Your task to perform on an android device: turn on bluetooth scan Image 0: 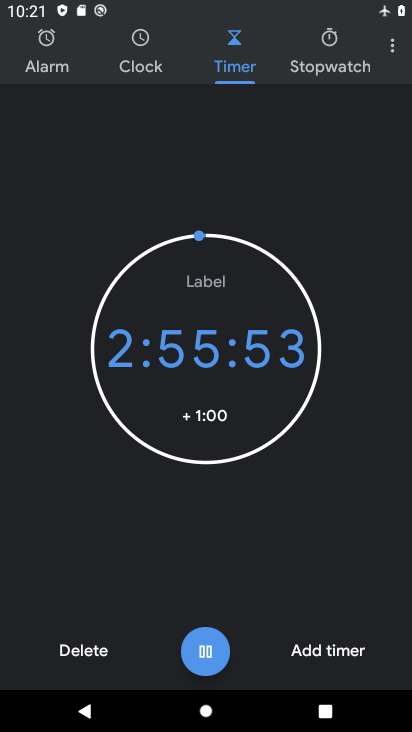
Step 0: press back button
Your task to perform on an android device: turn on bluetooth scan Image 1: 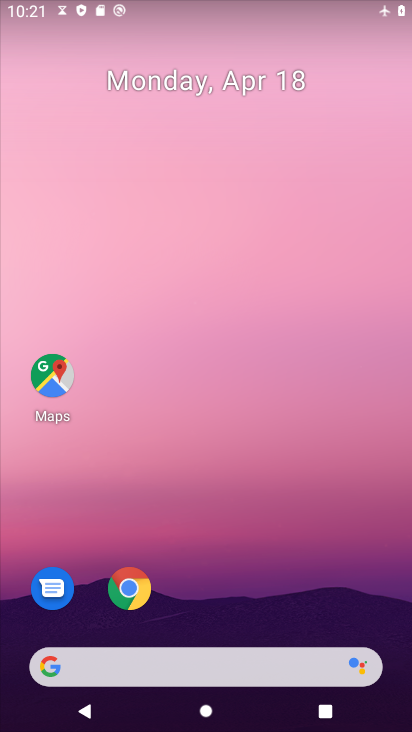
Step 1: drag from (308, 546) to (220, 50)
Your task to perform on an android device: turn on bluetooth scan Image 2: 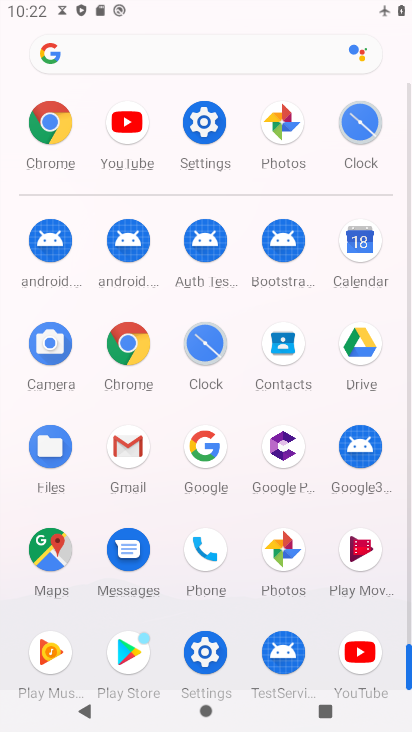
Step 2: click (207, 120)
Your task to perform on an android device: turn on bluetooth scan Image 3: 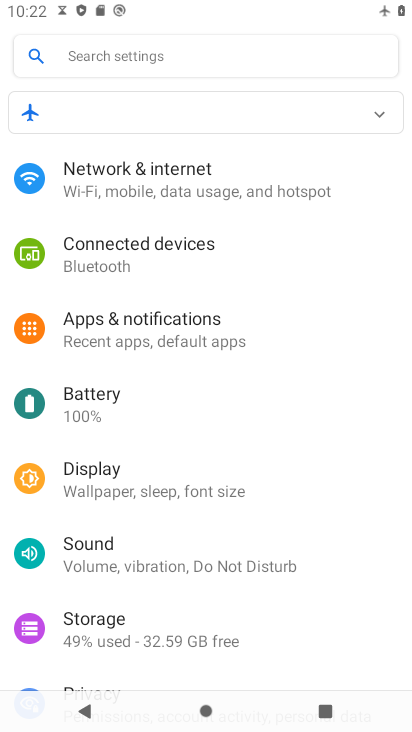
Step 3: drag from (256, 552) to (299, 208)
Your task to perform on an android device: turn on bluetooth scan Image 4: 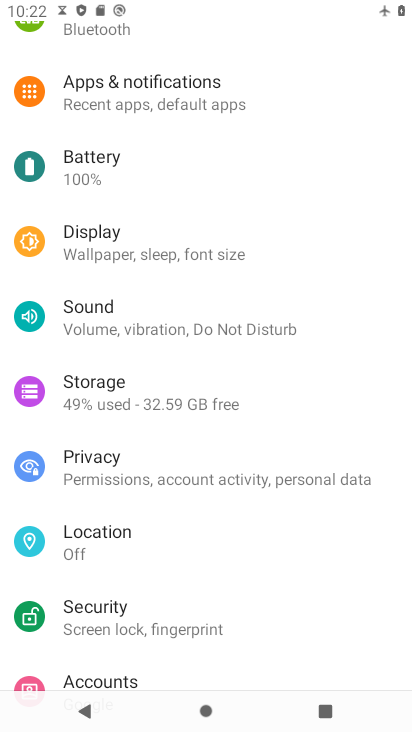
Step 4: click (150, 546)
Your task to perform on an android device: turn on bluetooth scan Image 5: 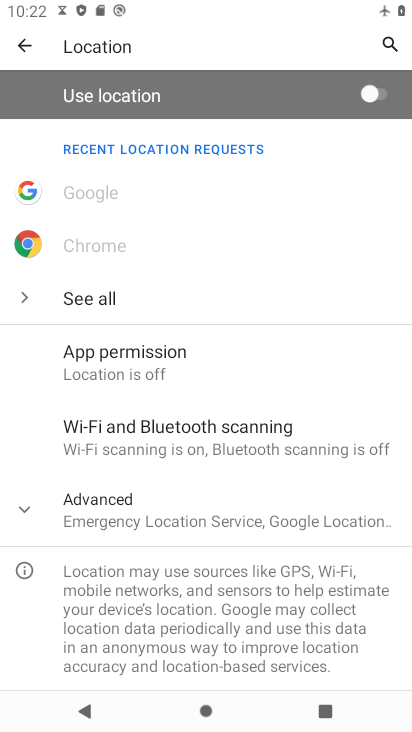
Step 5: click (201, 436)
Your task to perform on an android device: turn on bluetooth scan Image 6: 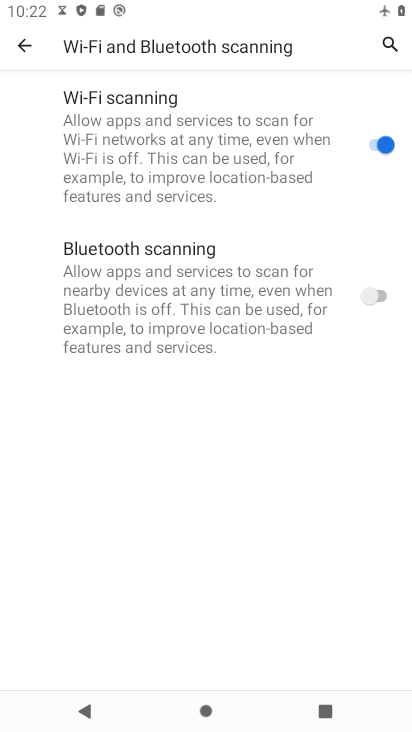
Step 6: click (374, 295)
Your task to perform on an android device: turn on bluetooth scan Image 7: 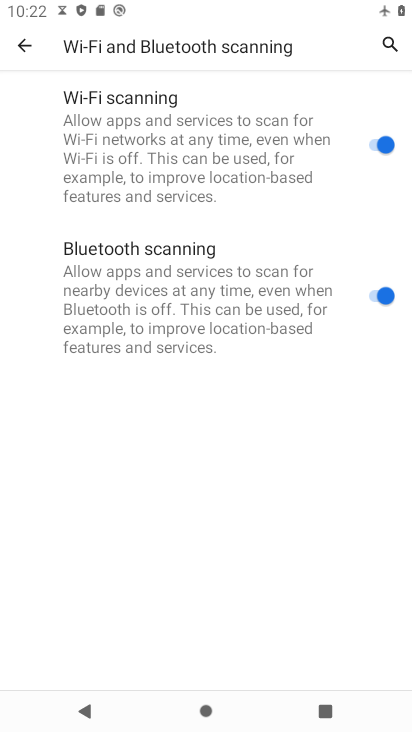
Step 7: task complete